Your task to perform on an android device: Turn off the flashlight Image 0: 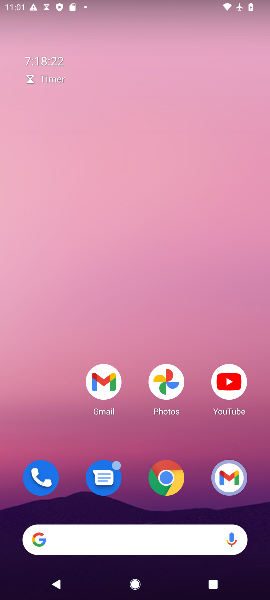
Step 0: drag from (196, 435) to (176, 123)
Your task to perform on an android device: Turn off the flashlight Image 1: 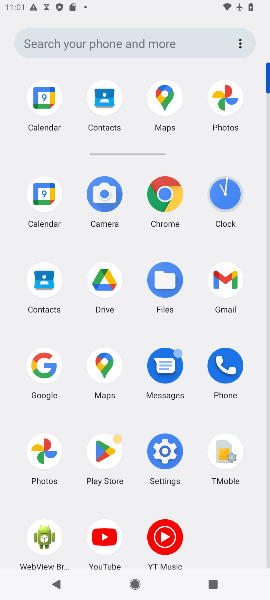
Step 1: drag from (197, 4) to (206, 420)
Your task to perform on an android device: Turn off the flashlight Image 2: 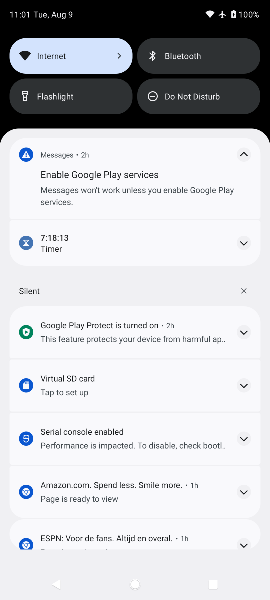
Step 2: drag from (137, 120) to (129, 581)
Your task to perform on an android device: Turn off the flashlight Image 3: 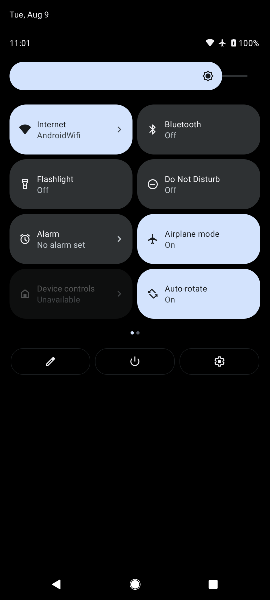
Step 3: click (46, 175)
Your task to perform on an android device: Turn off the flashlight Image 4: 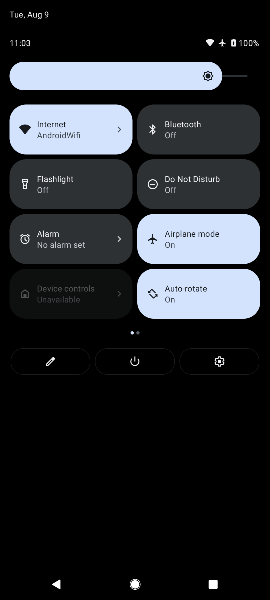
Step 4: task complete